Your task to perform on an android device: turn on airplane mode Image 0: 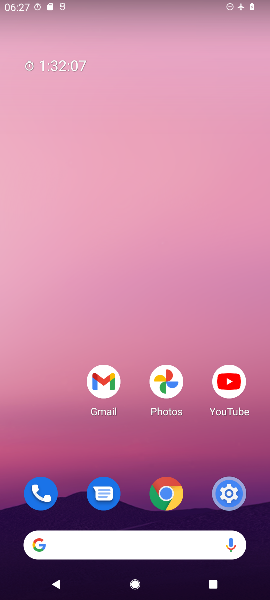
Step 0: press home button
Your task to perform on an android device: turn on airplane mode Image 1: 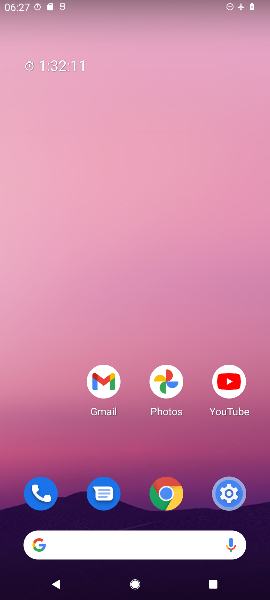
Step 1: drag from (54, 420) to (37, 46)
Your task to perform on an android device: turn on airplane mode Image 2: 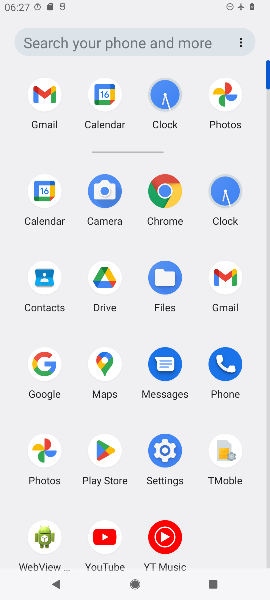
Step 2: click (166, 445)
Your task to perform on an android device: turn on airplane mode Image 3: 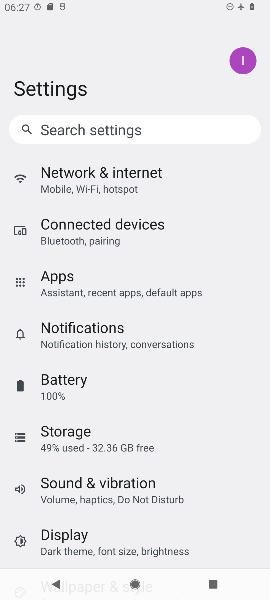
Step 3: drag from (230, 449) to (230, 347)
Your task to perform on an android device: turn on airplane mode Image 4: 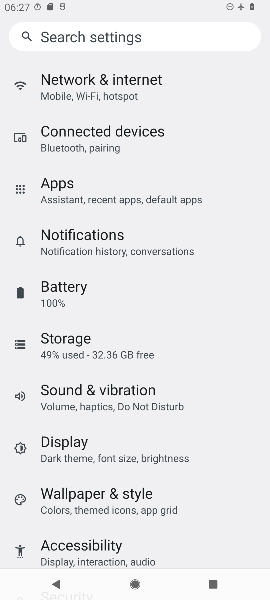
Step 4: drag from (237, 469) to (229, 371)
Your task to perform on an android device: turn on airplane mode Image 5: 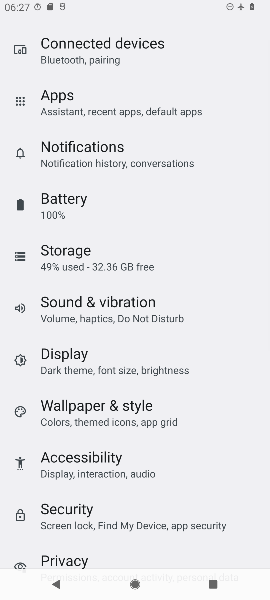
Step 5: drag from (225, 491) to (215, 362)
Your task to perform on an android device: turn on airplane mode Image 6: 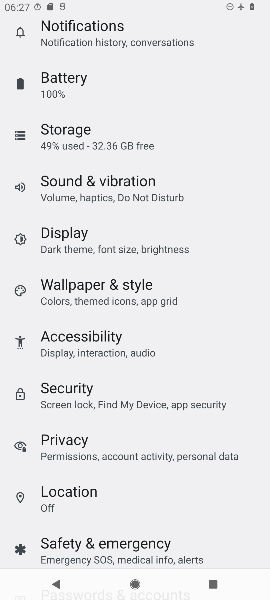
Step 6: drag from (211, 490) to (200, 339)
Your task to perform on an android device: turn on airplane mode Image 7: 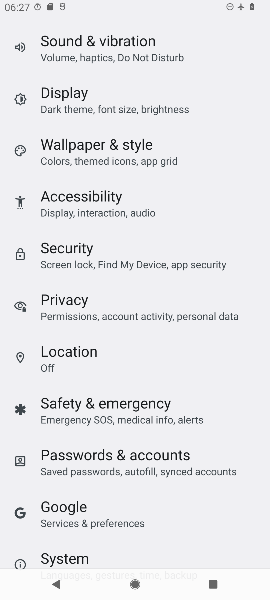
Step 7: drag from (221, 525) to (220, 403)
Your task to perform on an android device: turn on airplane mode Image 8: 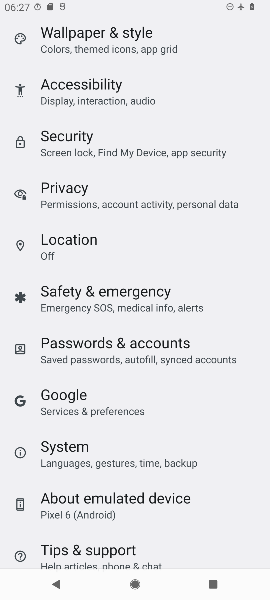
Step 8: drag from (245, 245) to (242, 384)
Your task to perform on an android device: turn on airplane mode Image 9: 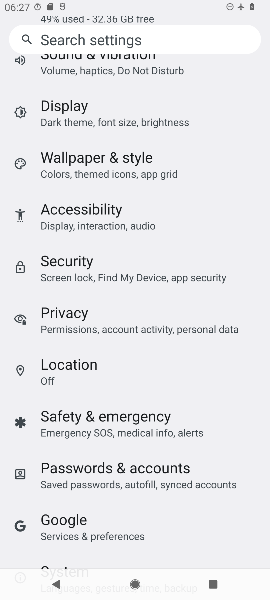
Step 9: drag from (245, 189) to (246, 318)
Your task to perform on an android device: turn on airplane mode Image 10: 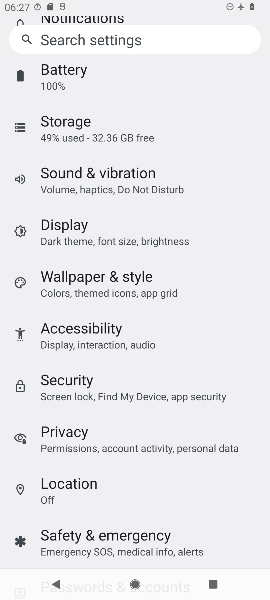
Step 10: drag from (229, 131) to (230, 317)
Your task to perform on an android device: turn on airplane mode Image 11: 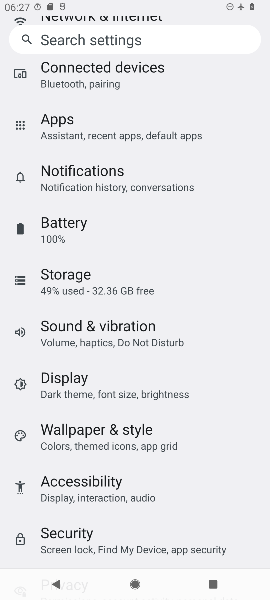
Step 11: drag from (242, 121) to (232, 311)
Your task to perform on an android device: turn on airplane mode Image 12: 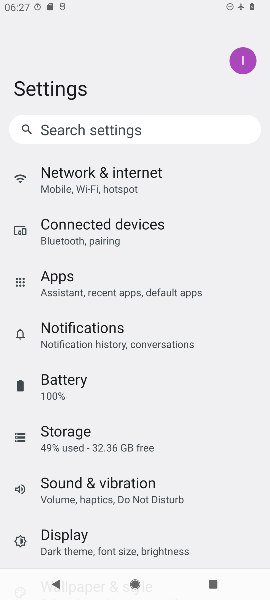
Step 12: drag from (236, 230) to (238, 362)
Your task to perform on an android device: turn on airplane mode Image 13: 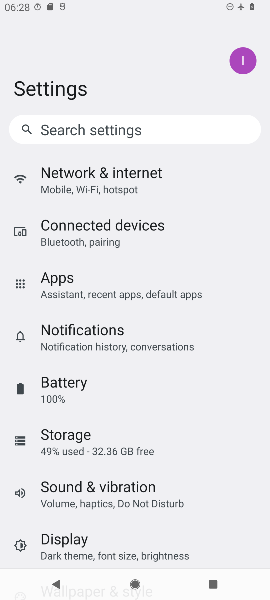
Step 13: click (163, 185)
Your task to perform on an android device: turn on airplane mode Image 14: 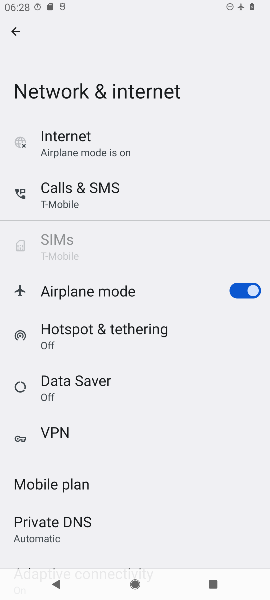
Step 14: task complete